Your task to perform on an android device: What's the weather? Image 0: 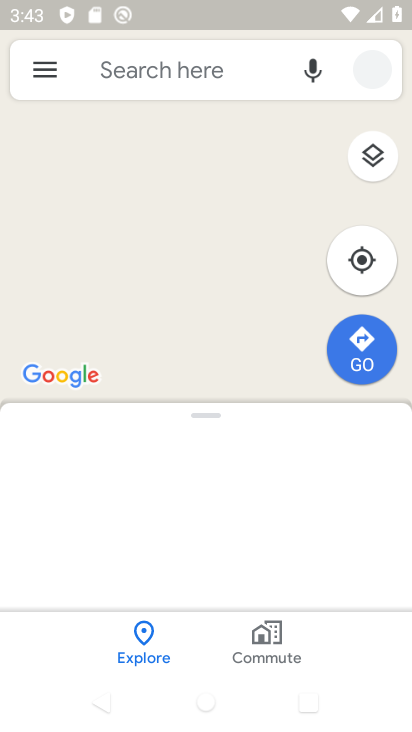
Step 0: press home button
Your task to perform on an android device: What's the weather? Image 1: 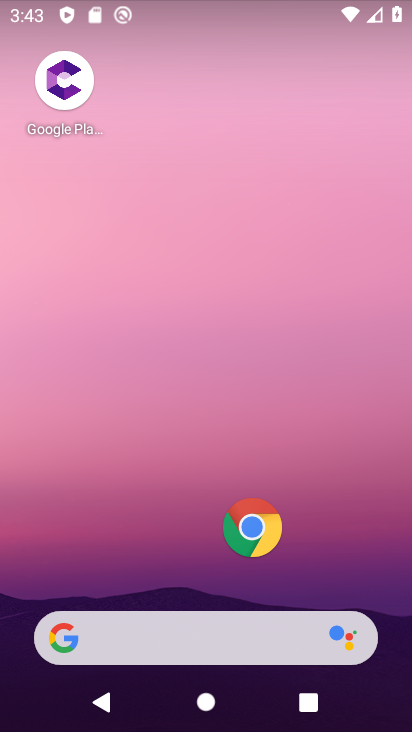
Step 1: drag from (7, 213) to (366, 298)
Your task to perform on an android device: What's the weather? Image 2: 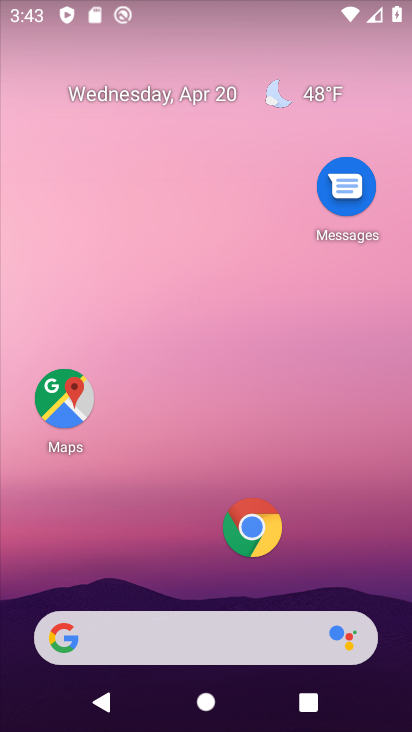
Step 2: click (320, 95)
Your task to perform on an android device: What's the weather? Image 3: 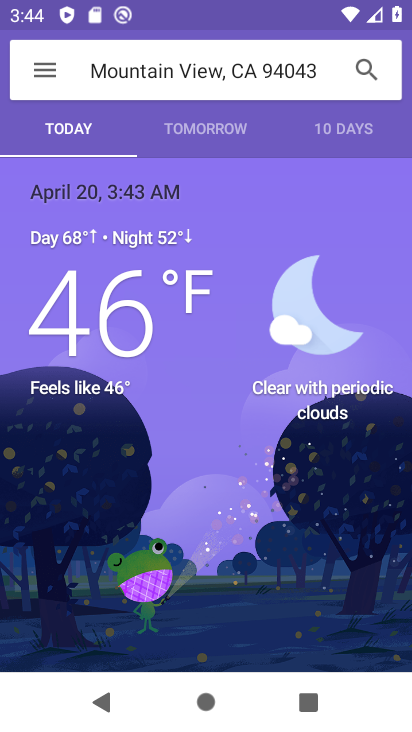
Step 3: task complete